Your task to perform on an android device: Set the phone to "Do not disturb". Image 0: 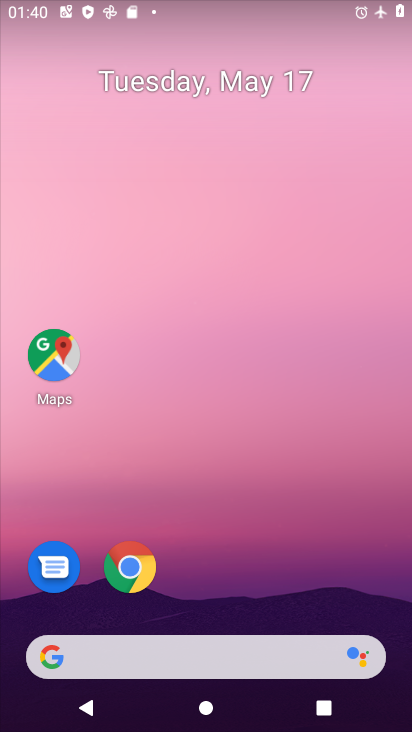
Step 0: drag from (261, 496) to (189, 65)
Your task to perform on an android device: Set the phone to "Do not disturb". Image 1: 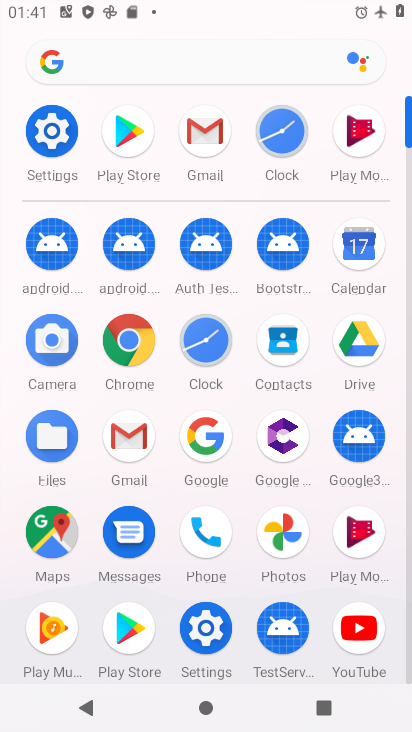
Step 1: click (50, 130)
Your task to perform on an android device: Set the phone to "Do not disturb". Image 2: 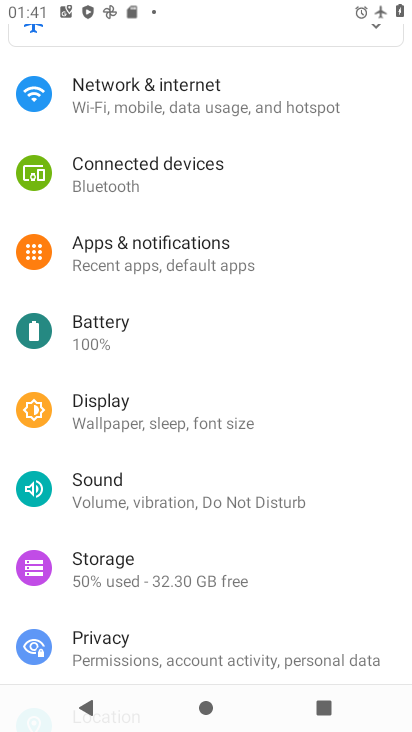
Step 2: click (99, 500)
Your task to perform on an android device: Set the phone to "Do not disturb". Image 3: 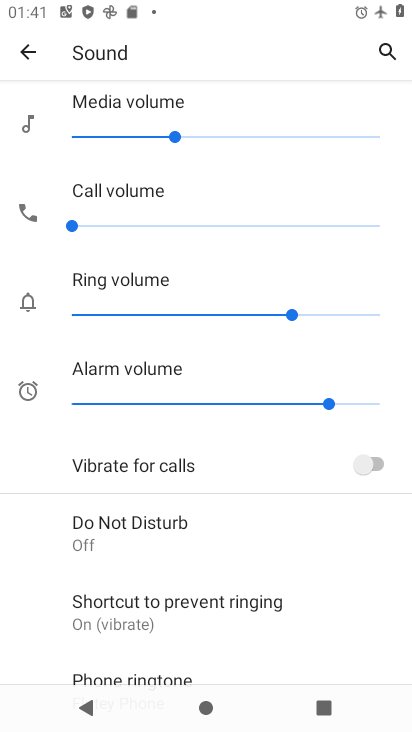
Step 3: click (123, 519)
Your task to perform on an android device: Set the phone to "Do not disturb". Image 4: 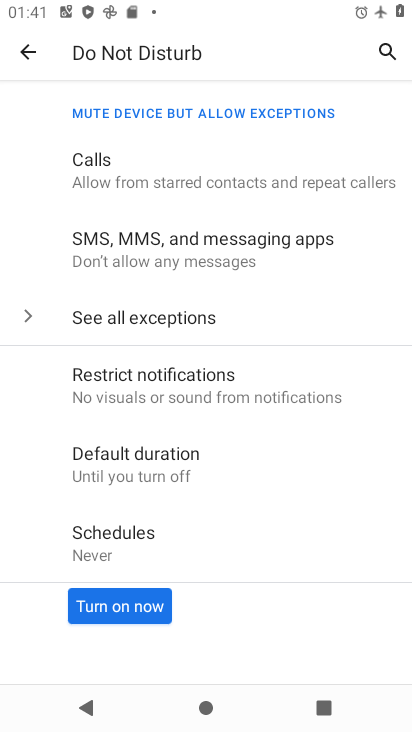
Step 4: click (155, 601)
Your task to perform on an android device: Set the phone to "Do not disturb". Image 5: 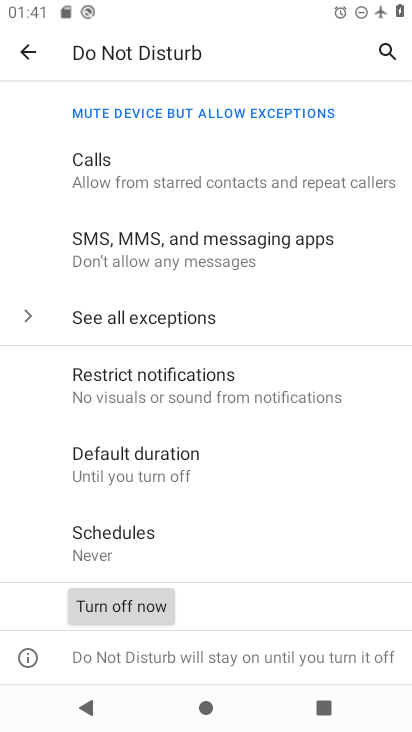
Step 5: task complete